Your task to perform on an android device: turn on airplane mode Image 0: 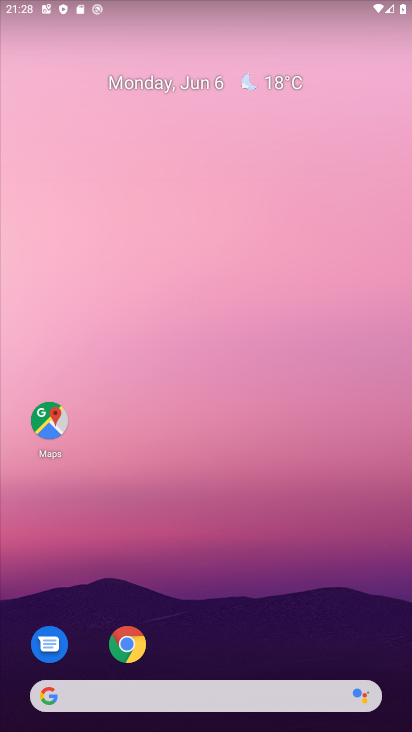
Step 0: drag from (304, 651) to (307, 170)
Your task to perform on an android device: turn on airplane mode Image 1: 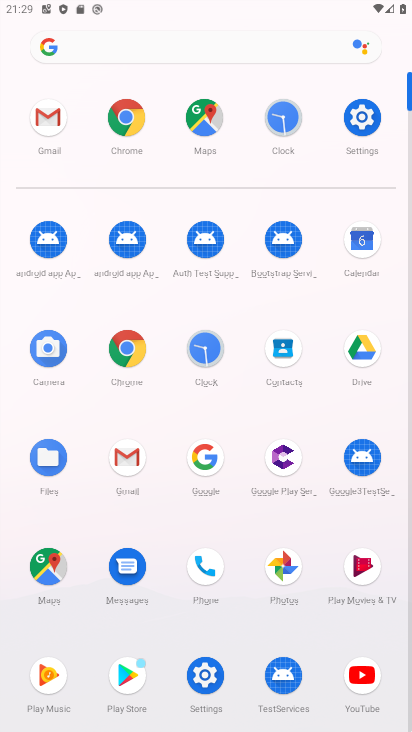
Step 1: click (211, 682)
Your task to perform on an android device: turn on airplane mode Image 2: 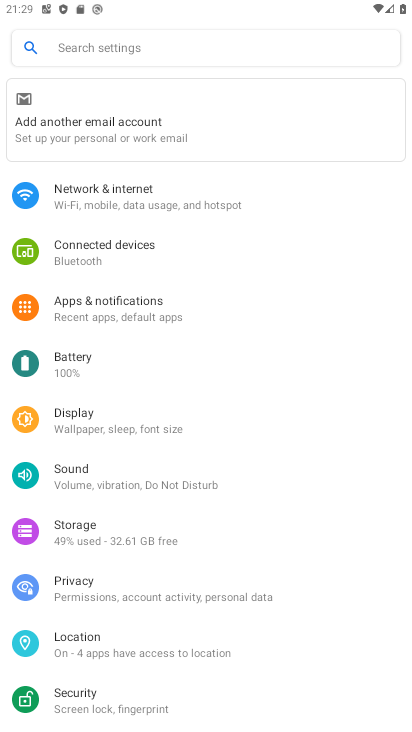
Step 2: click (265, 202)
Your task to perform on an android device: turn on airplane mode Image 3: 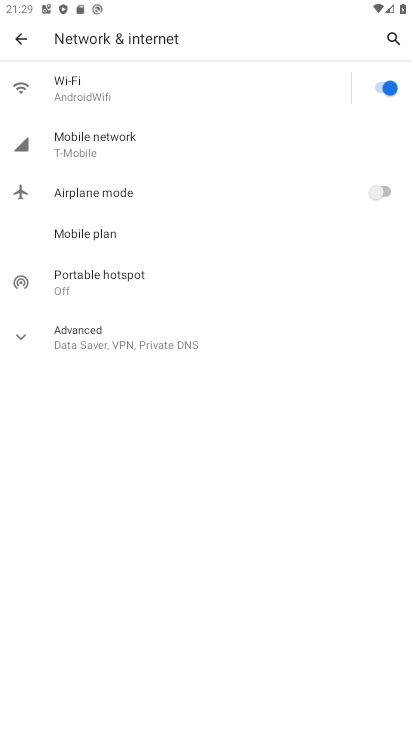
Step 3: click (389, 190)
Your task to perform on an android device: turn on airplane mode Image 4: 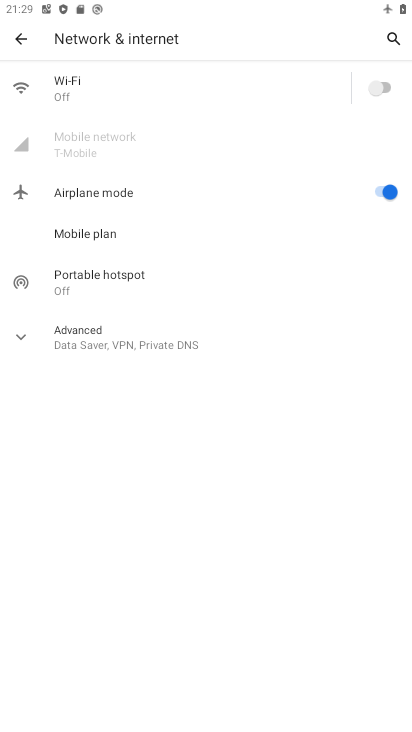
Step 4: task complete